Your task to perform on an android device: check data usage Image 0: 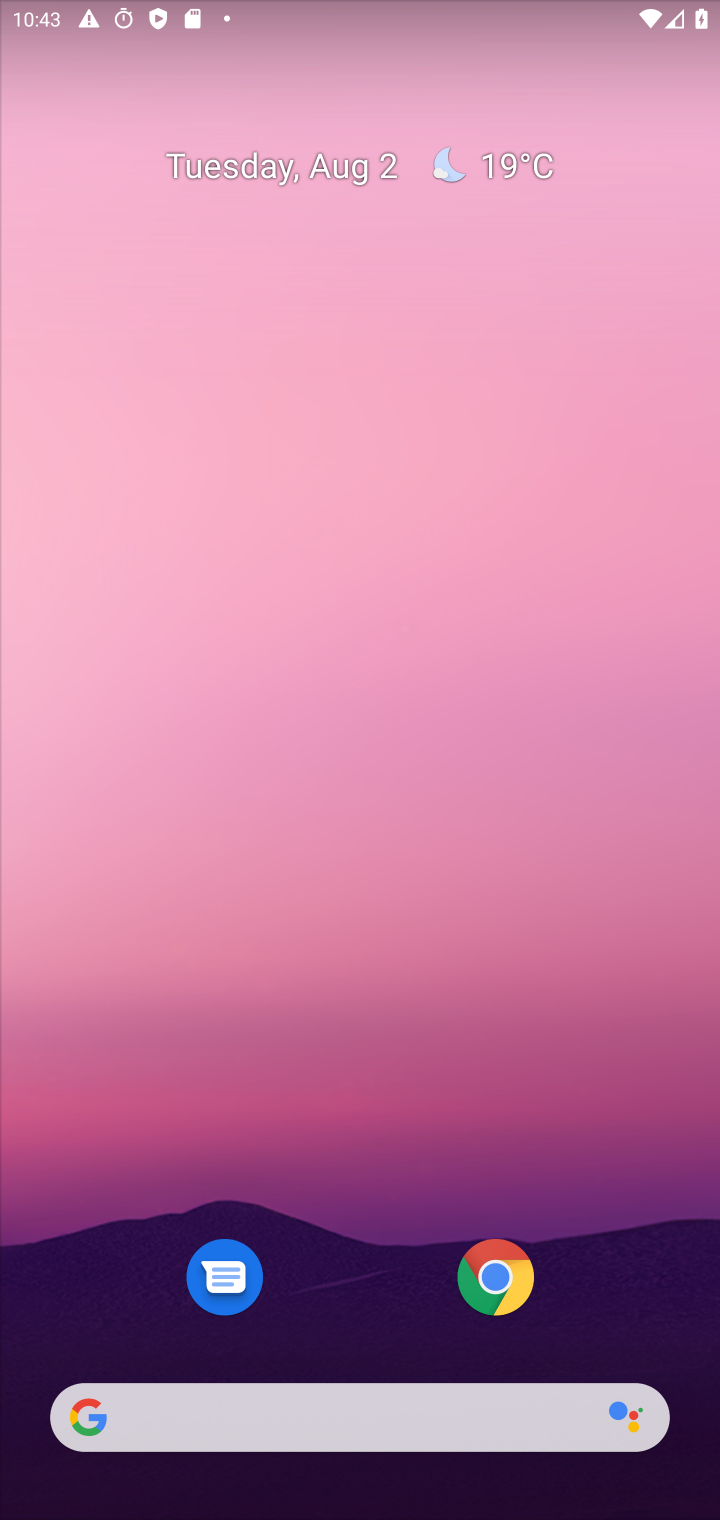
Step 0: press home button
Your task to perform on an android device: check data usage Image 1: 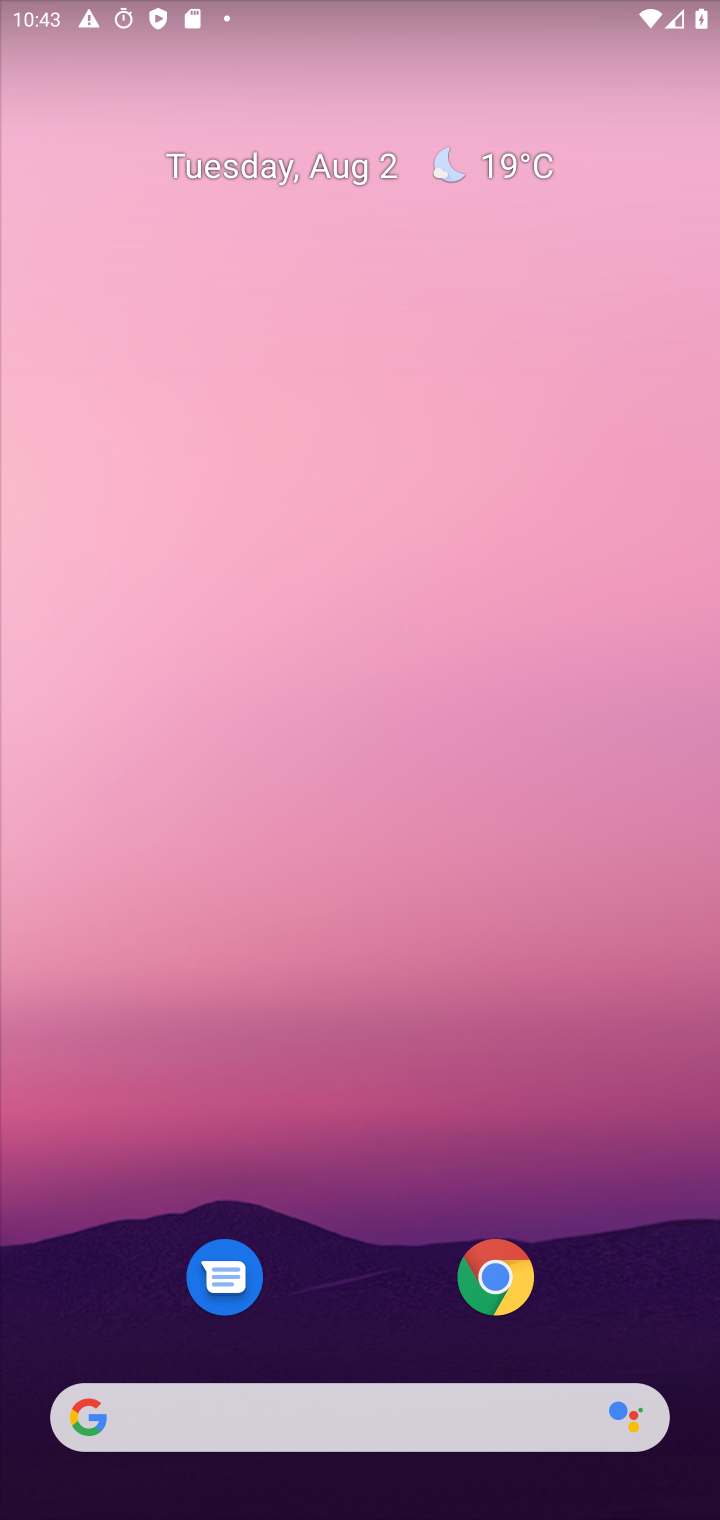
Step 1: click (253, 99)
Your task to perform on an android device: check data usage Image 2: 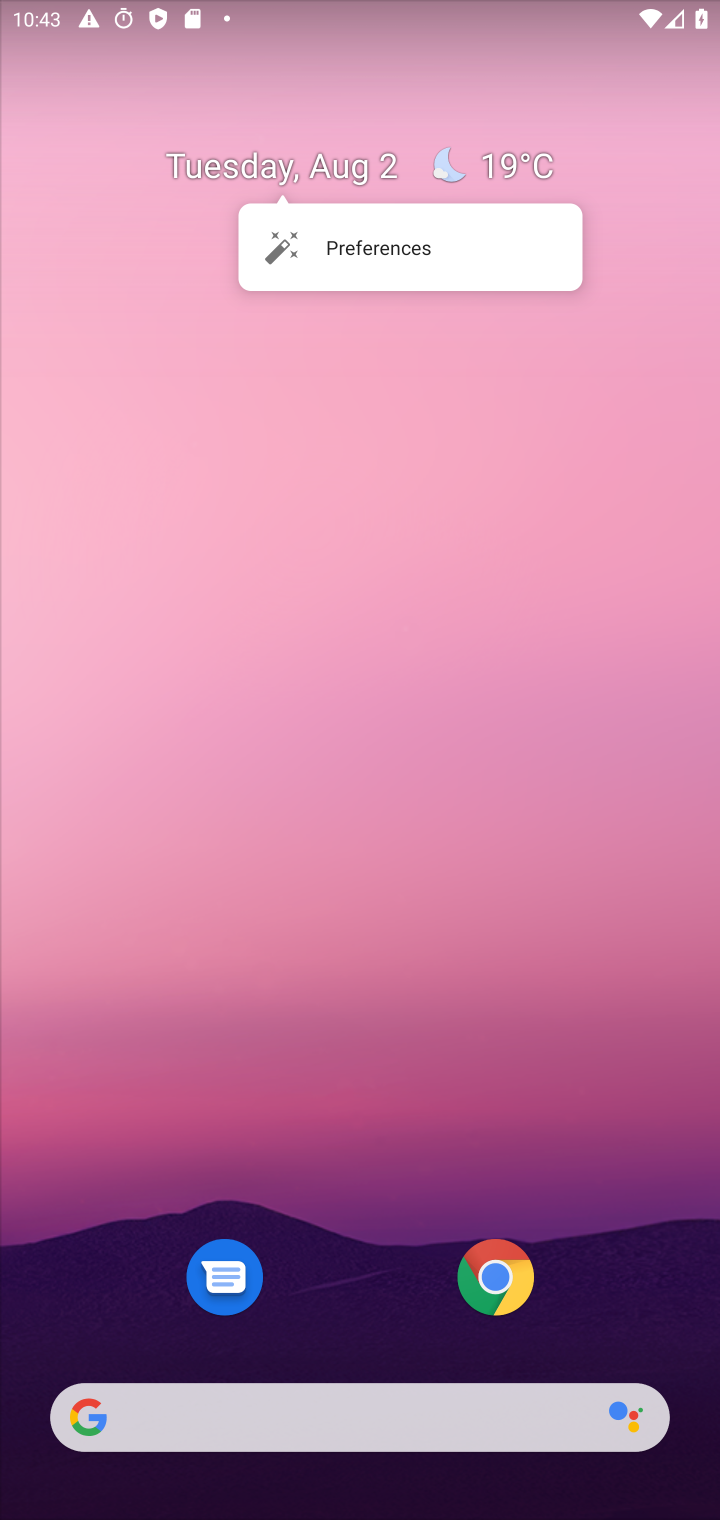
Step 2: drag from (350, 403) to (352, 271)
Your task to perform on an android device: check data usage Image 3: 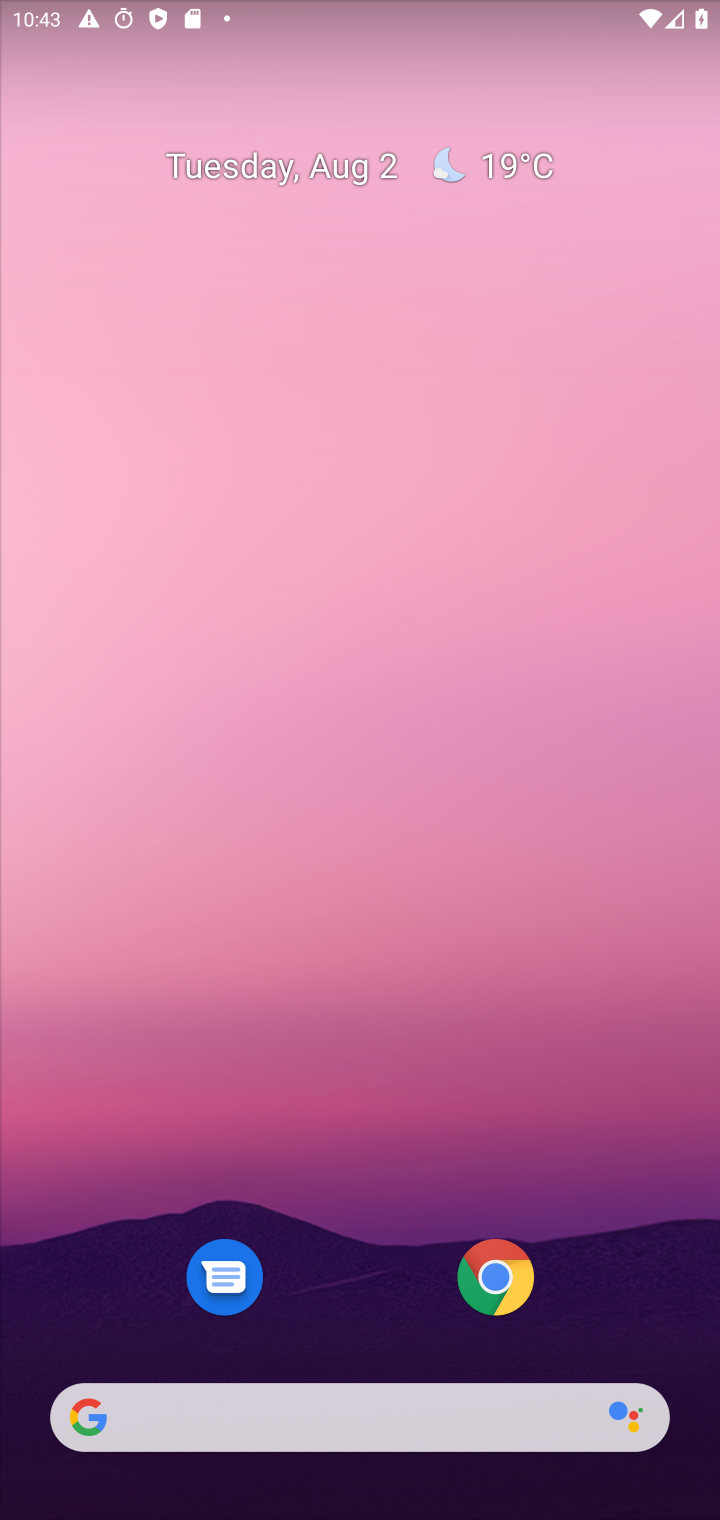
Step 3: drag from (363, 1118) to (408, 222)
Your task to perform on an android device: check data usage Image 4: 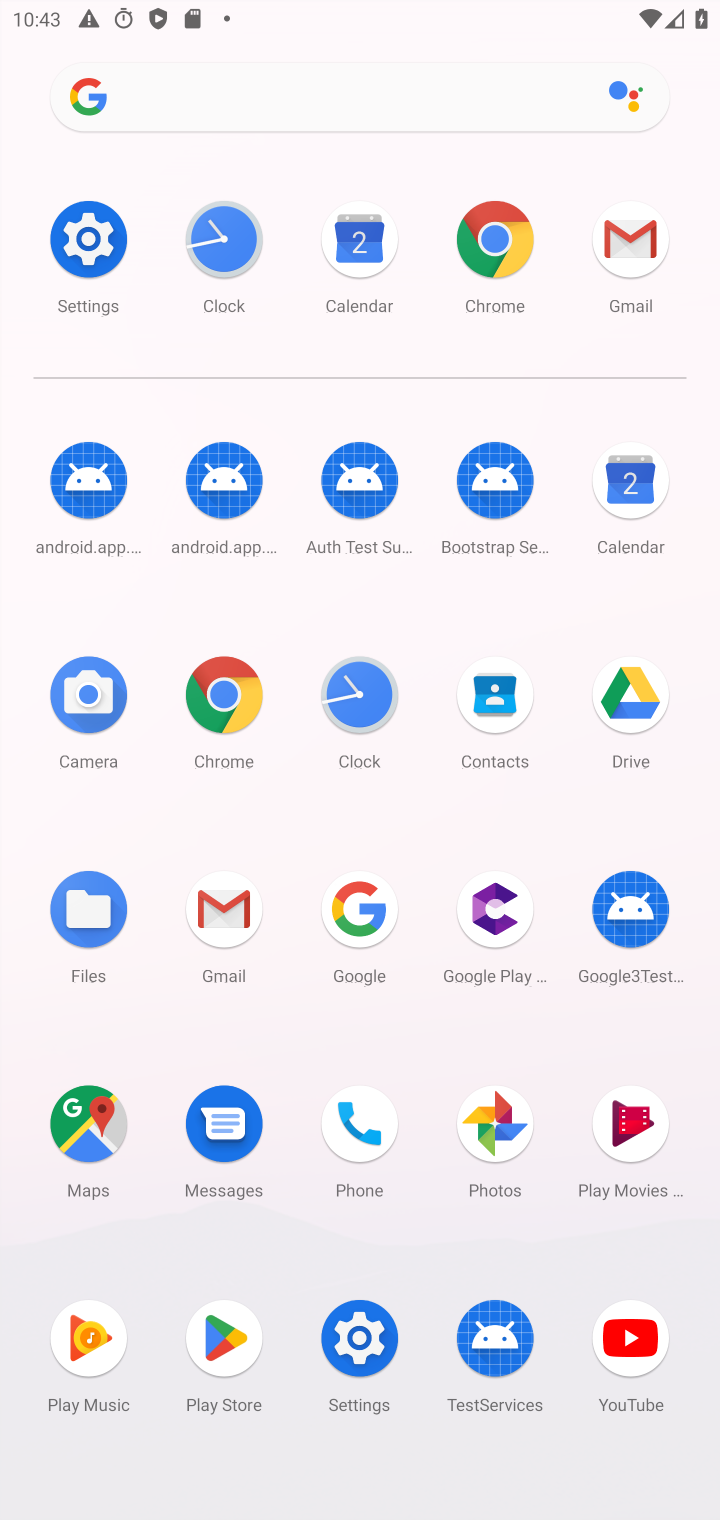
Step 4: click (82, 241)
Your task to perform on an android device: check data usage Image 5: 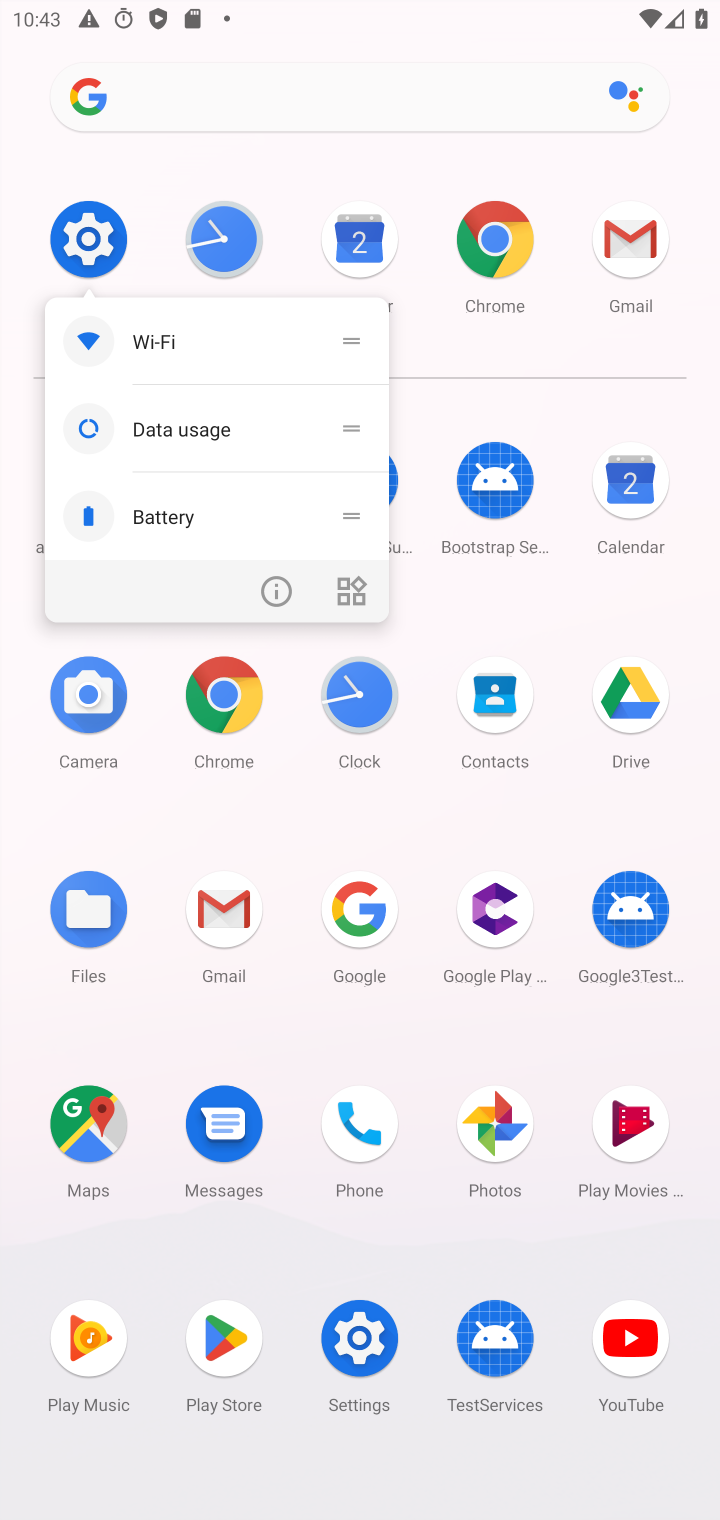
Step 5: click (82, 241)
Your task to perform on an android device: check data usage Image 6: 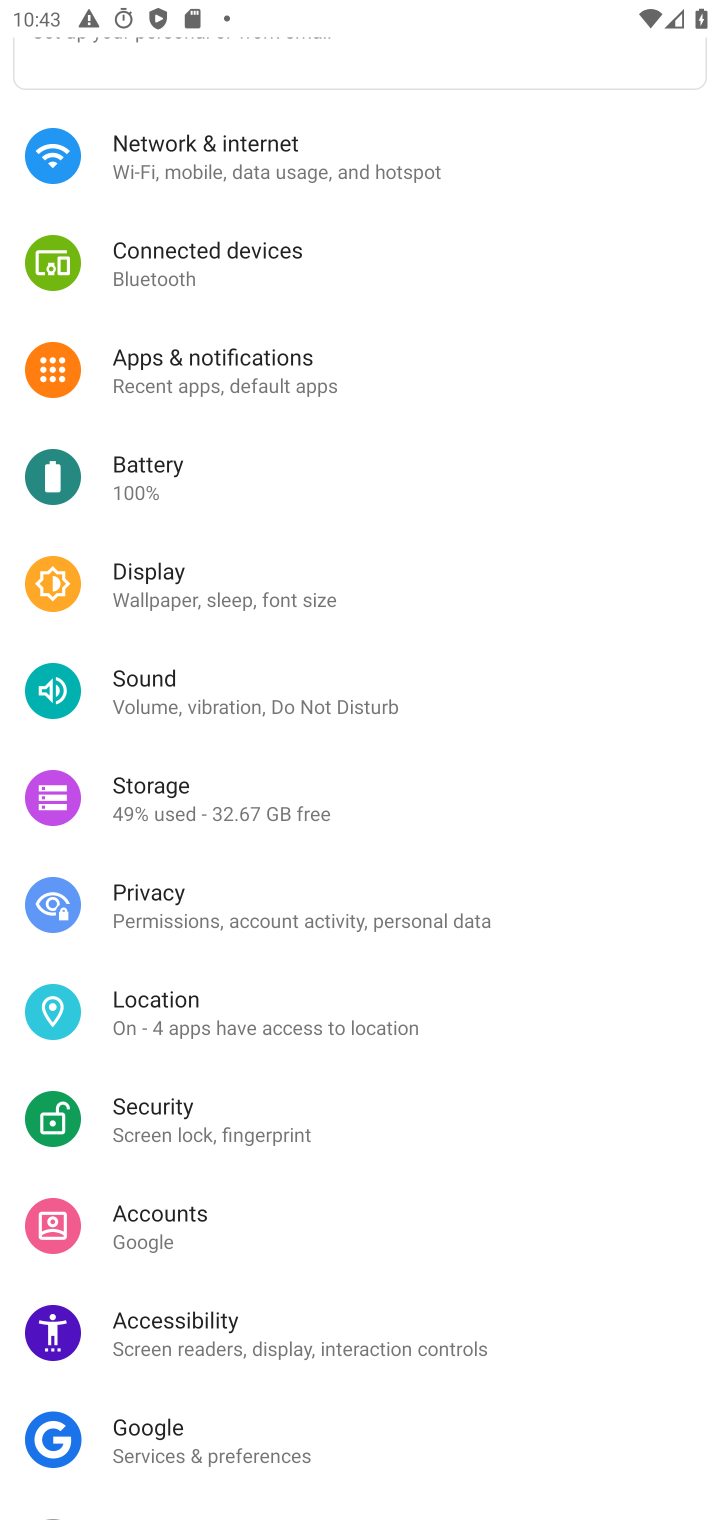
Step 6: click (151, 160)
Your task to perform on an android device: check data usage Image 7: 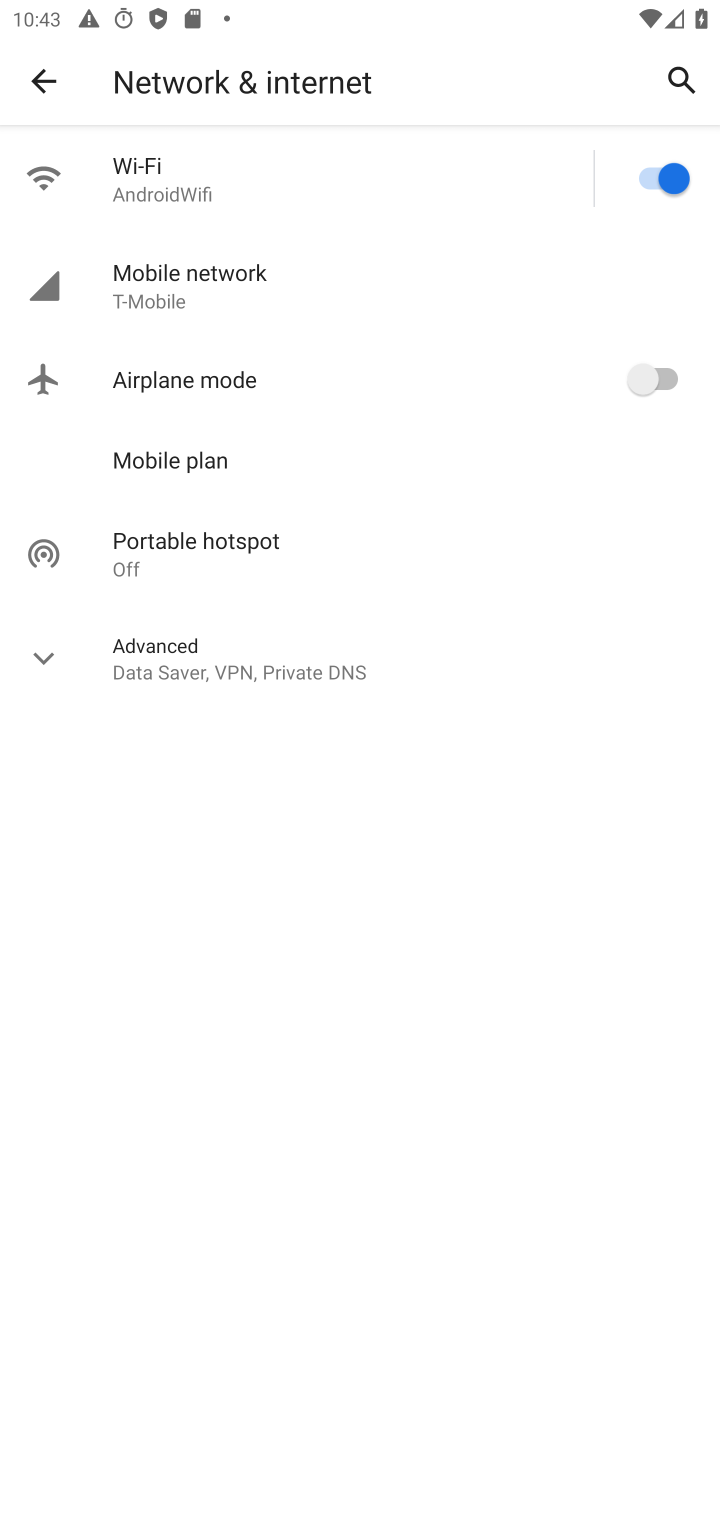
Step 7: click (272, 283)
Your task to perform on an android device: check data usage Image 8: 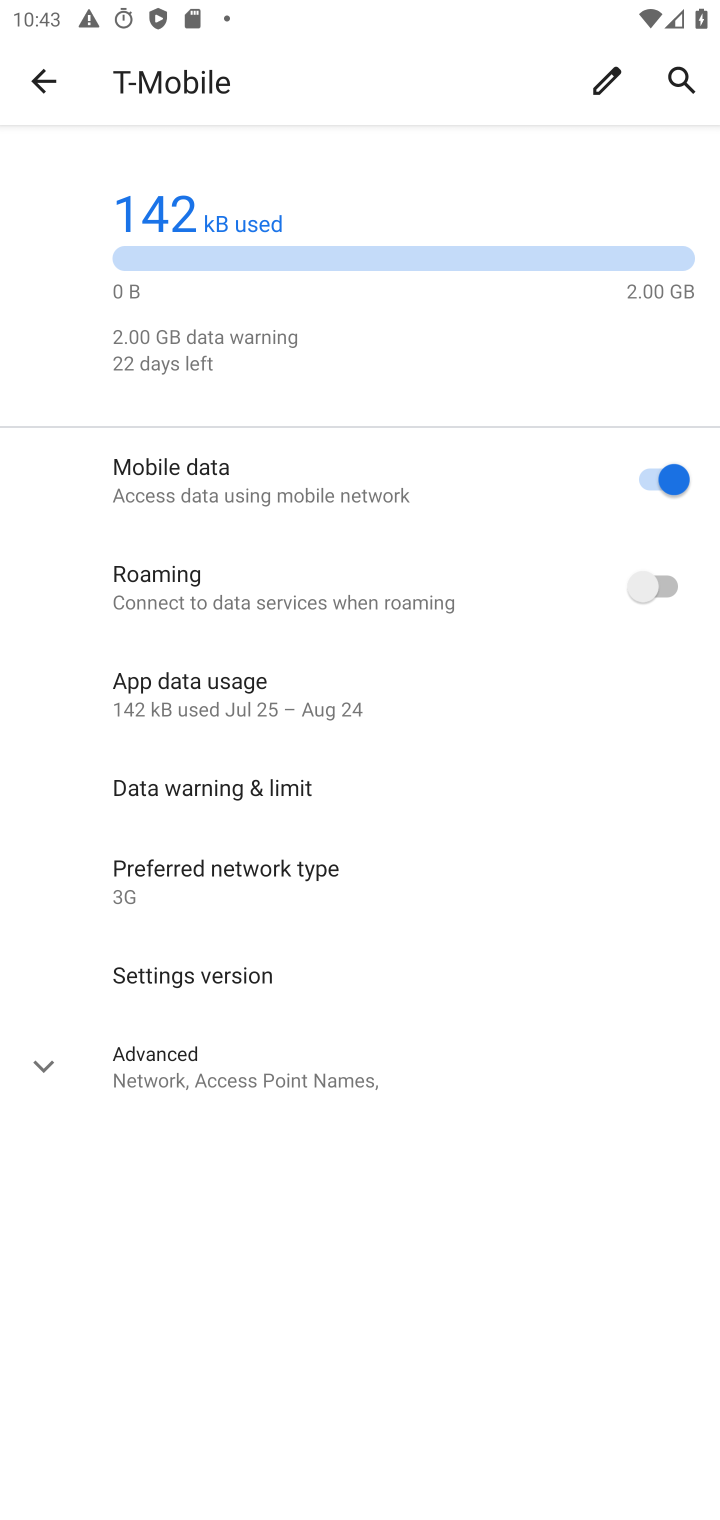
Step 8: task complete